Your task to perform on an android device: search for starred emails in the gmail app Image 0: 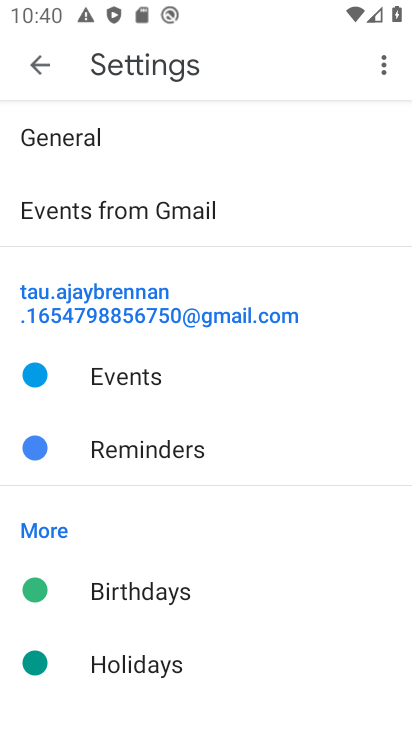
Step 0: press home button
Your task to perform on an android device: search for starred emails in the gmail app Image 1: 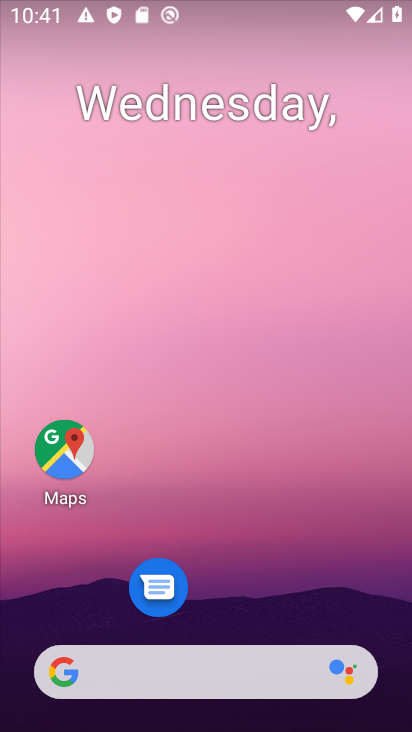
Step 1: drag from (227, 609) to (215, 36)
Your task to perform on an android device: search for starred emails in the gmail app Image 2: 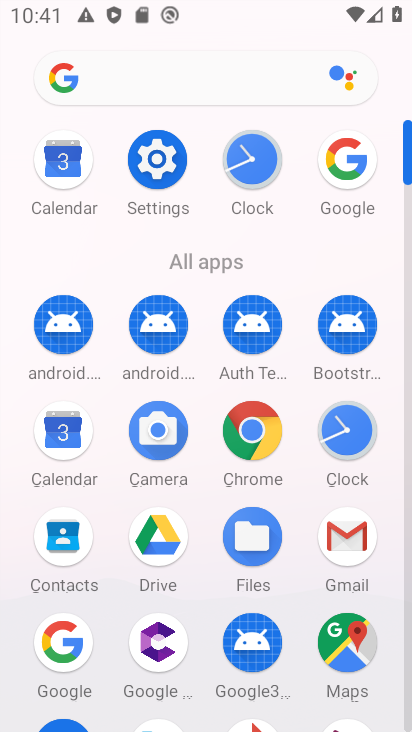
Step 2: drag from (205, 543) to (222, 110)
Your task to perform on an android device: search for starred emails in the gmail app Image 3: 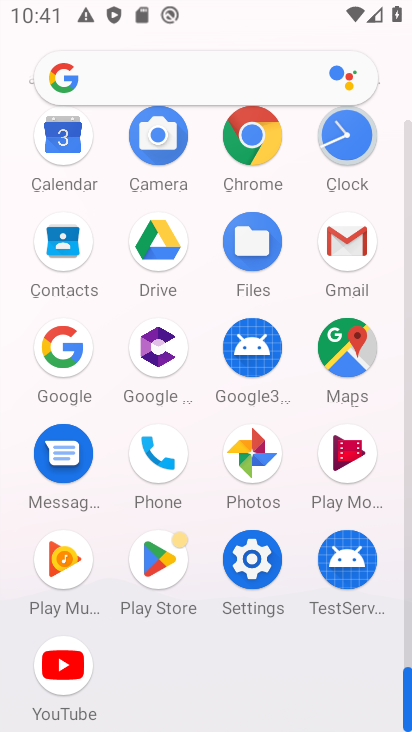
Step 3: click (345, 231)
Your task to perform on an android device: search for starred emails in the gmail app Image 4: 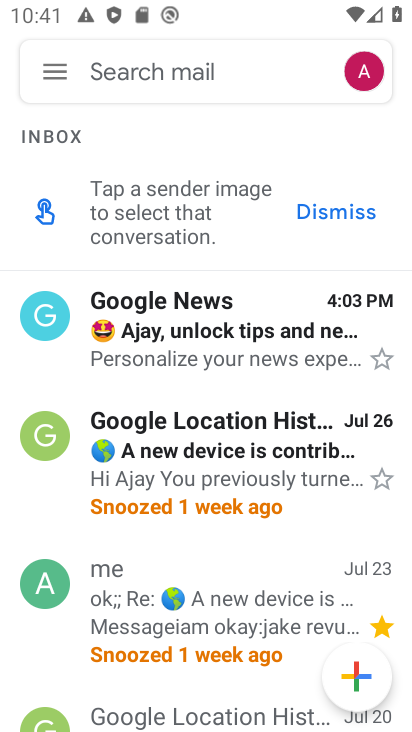
Step 4: click (45, 73)
Your task to perform on an android device: search for starred emails in the gmail app Image 5: 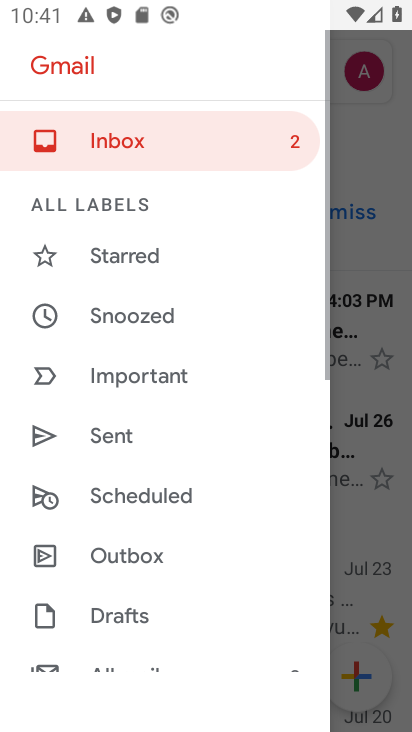
Step 5: click (109, 262)
Your task to perform on an android device: search for starred emails in the gmail app Image 6: 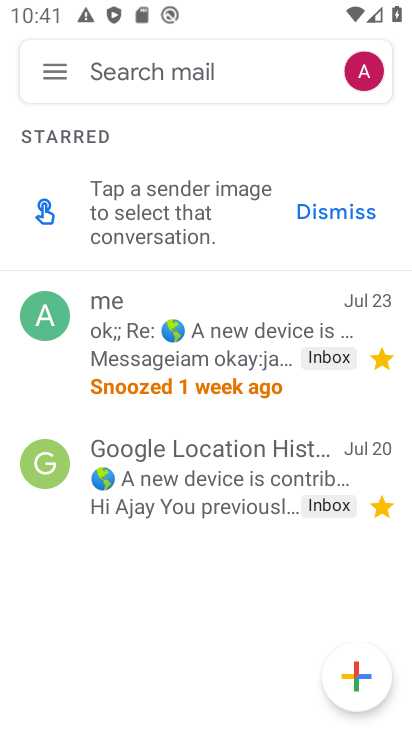
Step 6: task complete